Your task to perform on an android device: Open location settings Image 0: 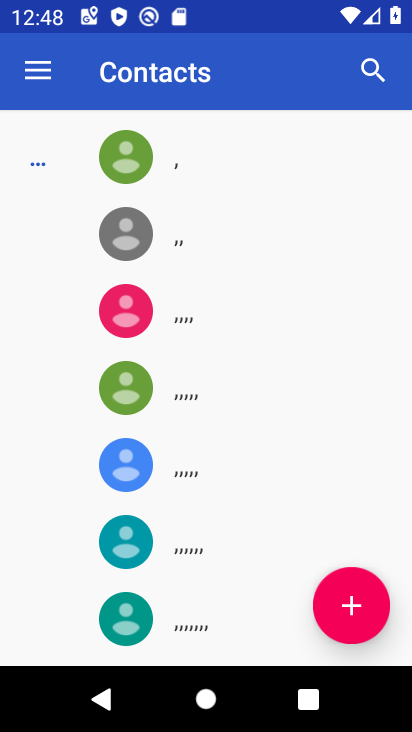
Step 0: press home button
Your task to perform on an android device: Open location settings Image 1: 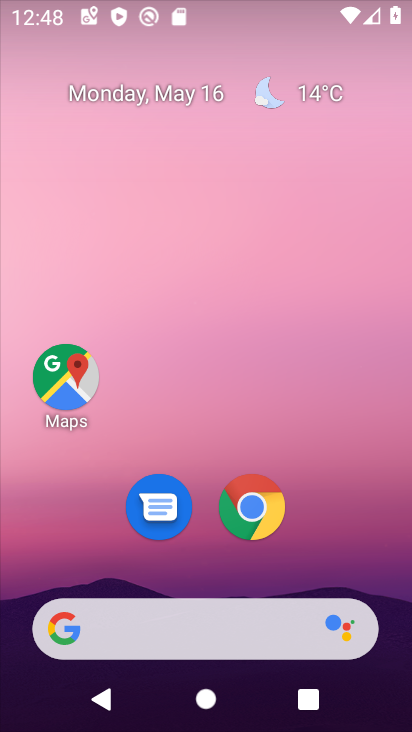
Step 1: drag from (319, 555) to (343, 168)
Your task to perform on an android device: Open location settings Image 2: 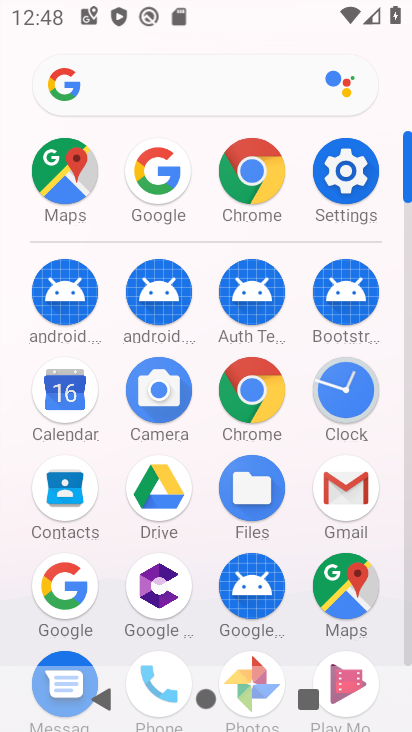
Step 2: click (358, 192)
Your task to perform on an android device: Open location settings Image 3: 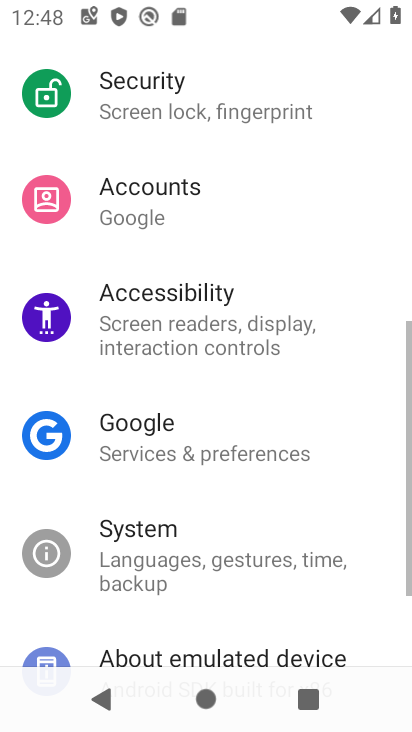
Step 3: drag from (223, 535) to (310, 187)
Your task to perform on an android device: Open location settings Image 4: 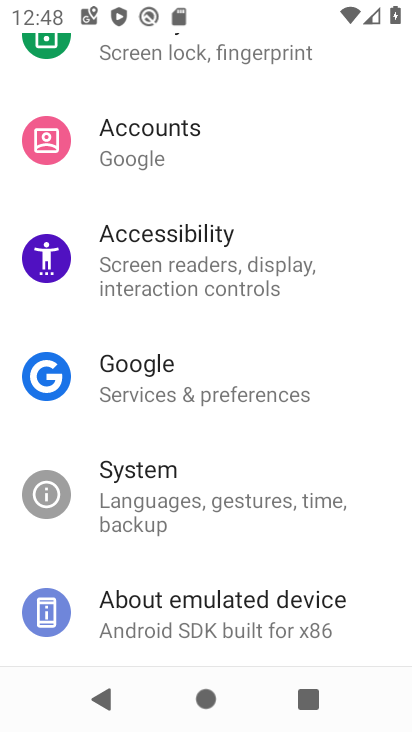
Step 4: drag from (224, 538) to (268, 198)
Your task to perform on an android device: Open location settings Image 5: 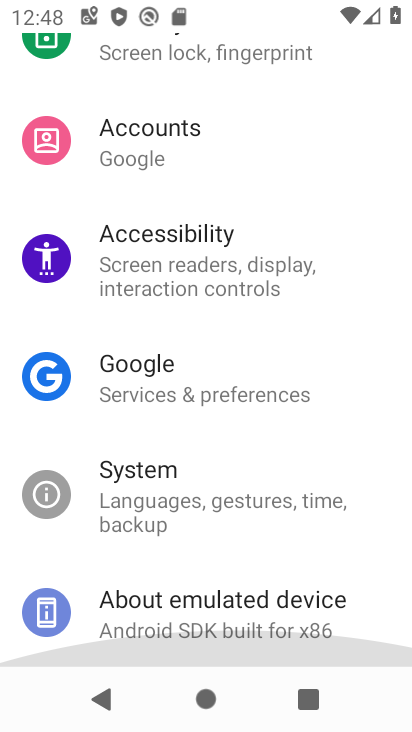
Step 5: drag from (268, 198) to (256, 551)
Your task to perform on an android device: Open location settings Image 6: 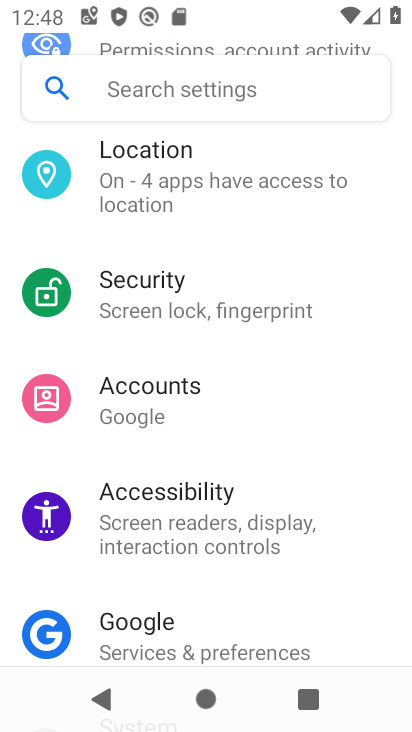
Step 6: click (228, 227)
Your task to perform on an android device: Open location settings Image 7: 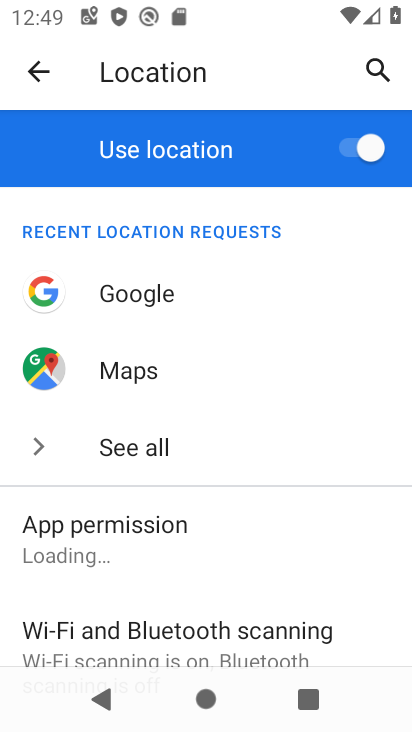
Step 7: task complete